Your task to perform on an android device: allow notifications from all sites in the chrome app Image 0: 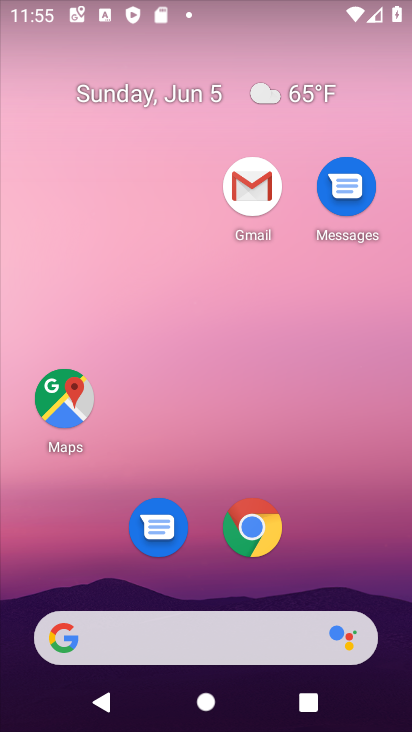
Step 0: click (247, 520)
Your task to perform on an android device: allow notifications from all sites in the chrome app Image 1: 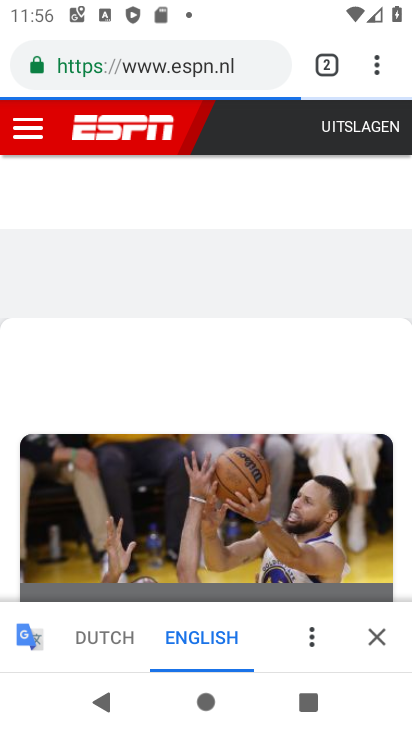
Step 1: click (375, 64)
Your task to perform on an android device: allow notifications from all sites in the chrome app Image 2: 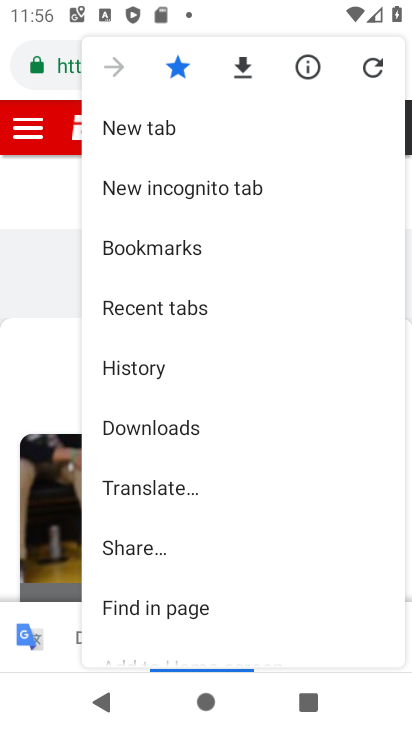
Step 2: drag from (181, 583) to (182, 121)
Your task to perform on an android device: allow notifications from all sites in the chrome app Image 3: 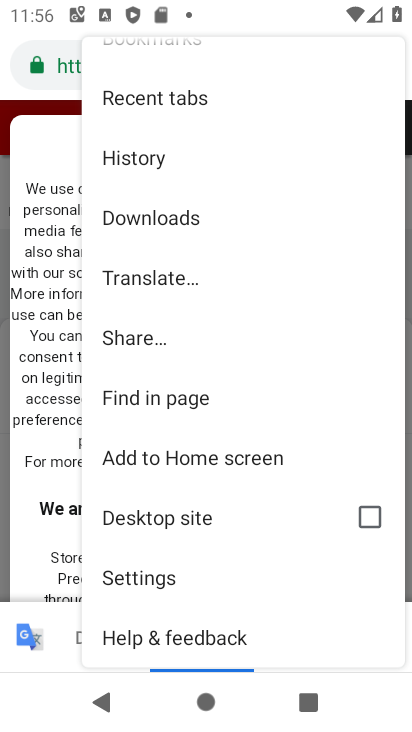
Step 3: click (162, 578)
Your task to perform on an android device: allow notifications from all sites in the chrome app Image 4: 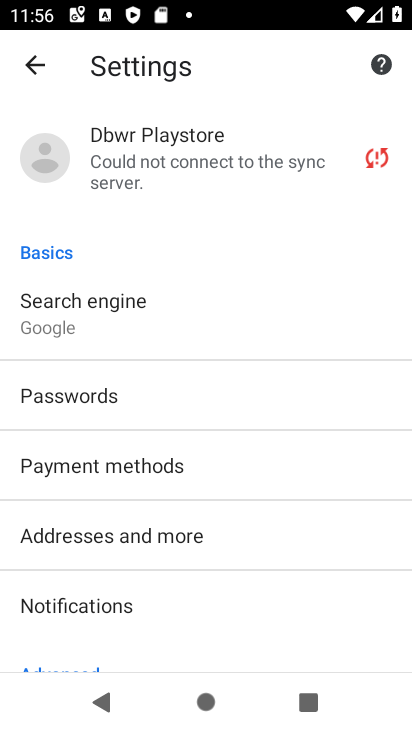
Step 4: drag from (217, 617) to (251, 516)
Your task to perform on an android device: allow notifications from all sites in the chrome app Image 5: 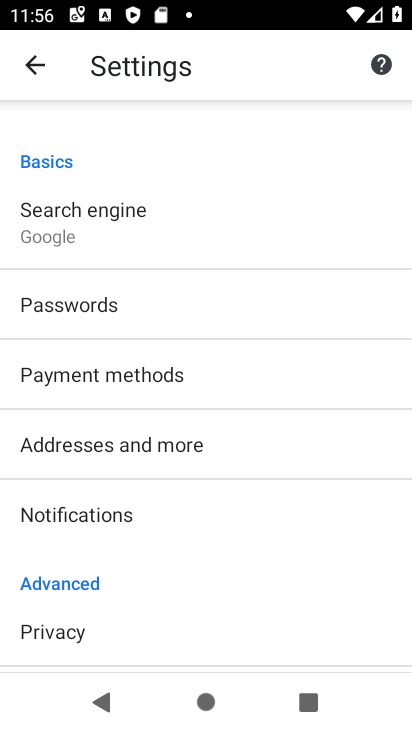
Step 5: click (125, 515)
Your task to perform on an android device: allow notifications from all sites in the chrome app Image 6: 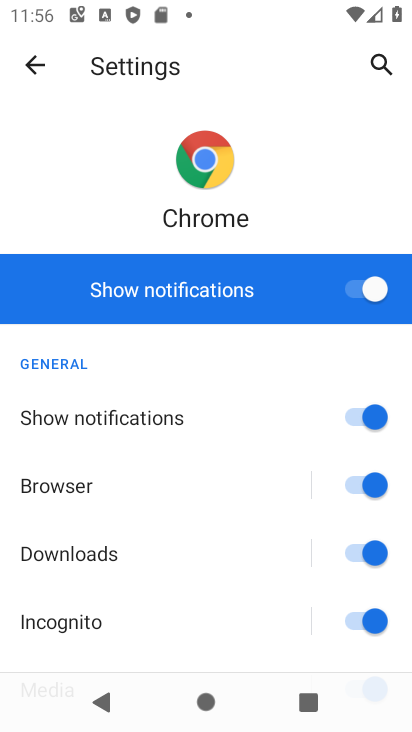
Step 6: task complete